Your task to perform on an android device: remove spam from my inbox in the gmail app Image 0: 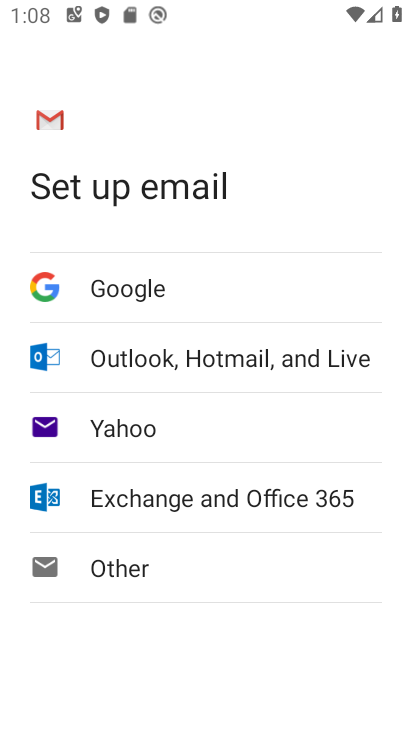
Step 0: press home button
Your task to perform on an android device: remove spam from my inbox in the gmail app Image 1: 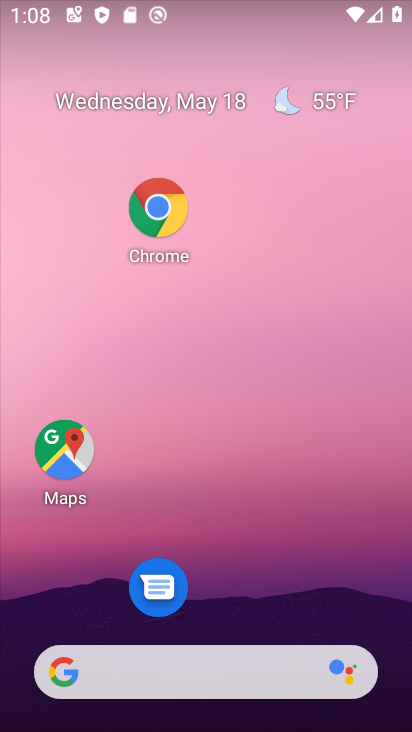
Step 1: drag from (275, 569) to (222, 48)
Your task to perform on an android device: remove spam from my inbox in the gmail app Image 2: 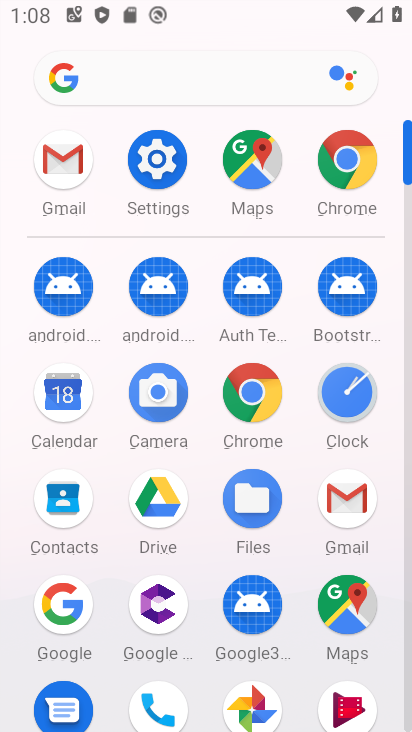
Step 2: click (63, 182)
Your task to perform on an android device: remove spam from my inbox in the gmail app Image 3: 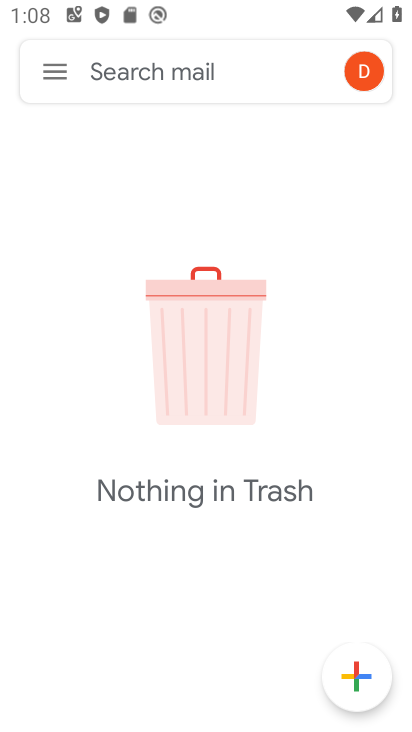
Step 3: click (58, 76)
Your task to perform on an android device: remove spam from my inbox in the gmail app Image 4: 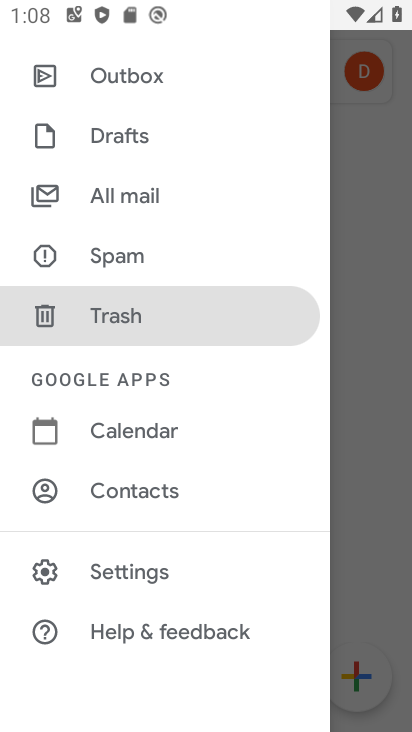
Step 4: click (138, 260)
Your task to perform on an android device: remove spam from my inbox in the gmail app Image 5: 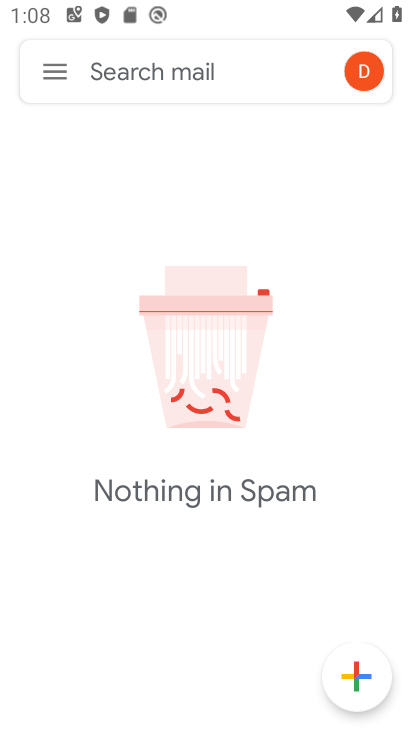
Step 5: task complete